Your task to perform on an android device: turn off picture-in-picture Image 0: 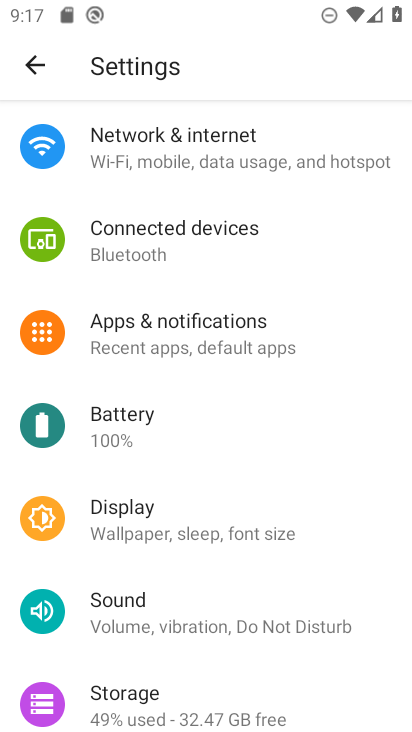
Step 0: press home button
Your task to perform on an android device: turn off picture-in-picture Image 1: 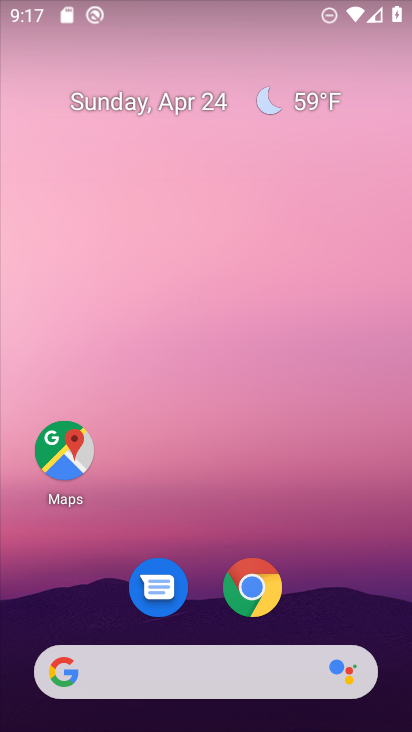
Step 1: click (255, 590)
Your task to perform on an android device: turn off picture-in-picture Image 2: 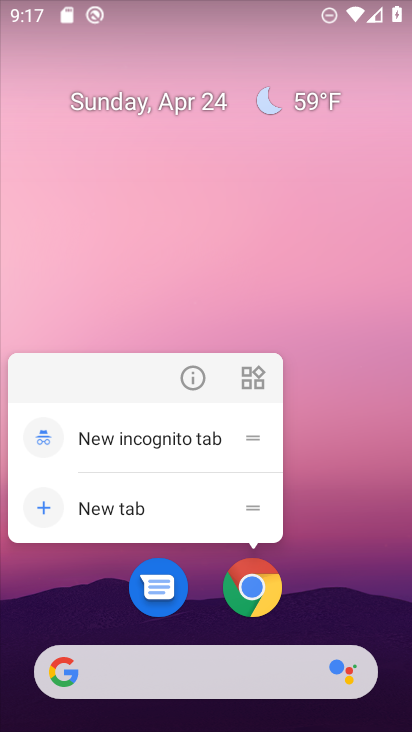
Step 2: click (193, 379)
Your task to perform on an android device: turn off picture-in-picture Image 3: 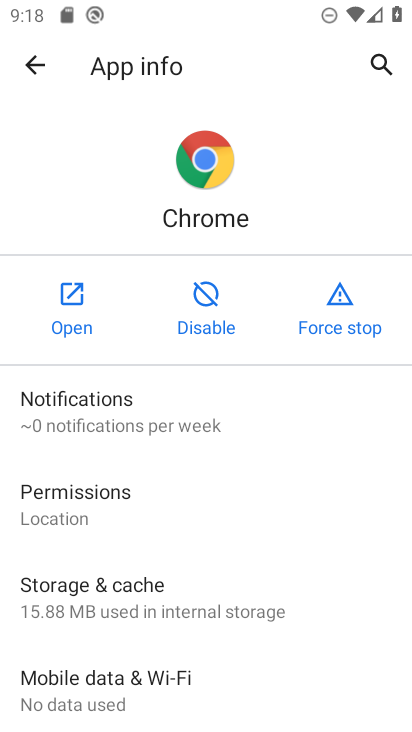
Step 3: drag from (153, 515) to (208, 379)
Your task to perform on an android device: turn off picture-in-picture Image 4: 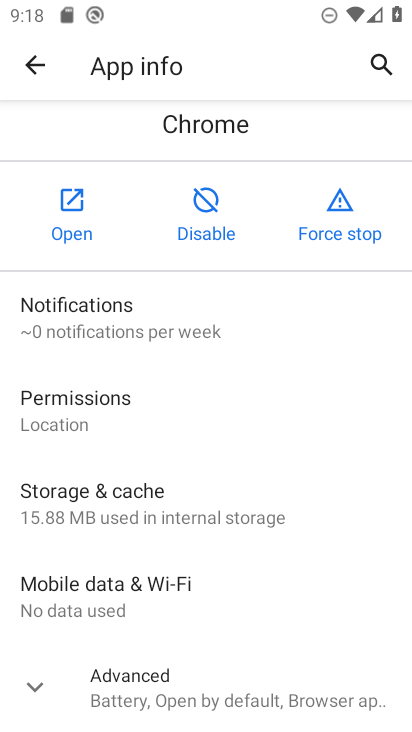
Step 4: click (121, 688)
Your task to perform on an android device: turn off picture-in-picture Image 5: 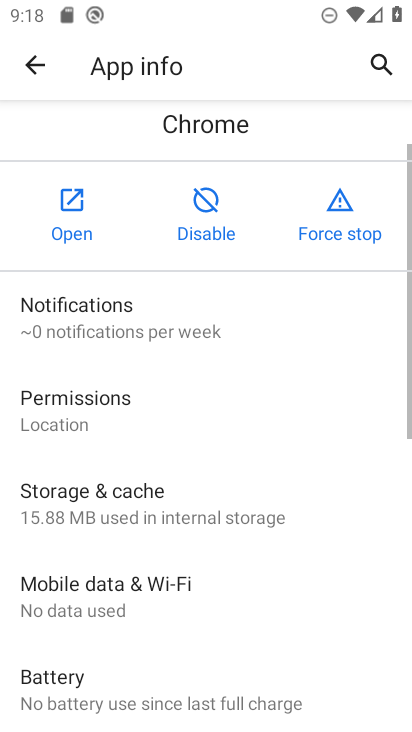
Step 5: drag from (124, 675) to (188, 530)
Your task to perform on an android device: turn off picture-in-picture Image 6: 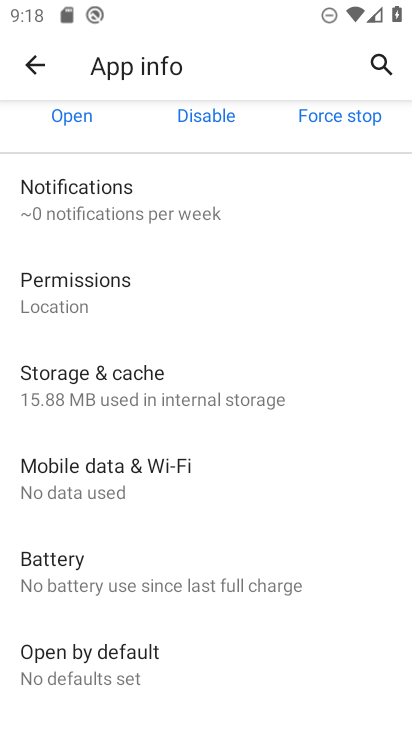
Step 6: drag from (143, 629) to (216, 518)
Your task to perform on an android device: turn off picture-in-picture Image 7: 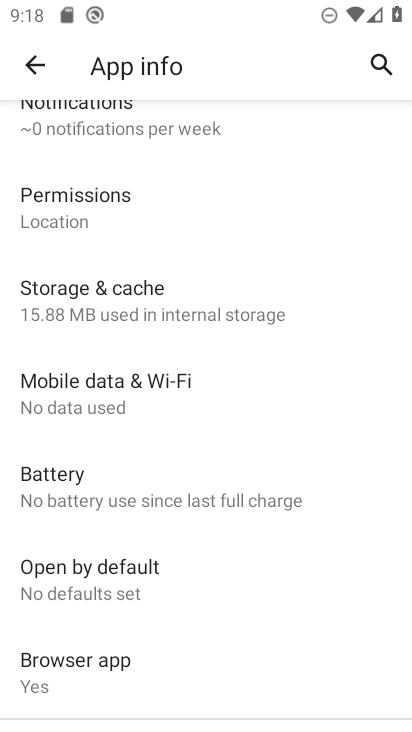
Step 7: drag from (134, 622) to (222, 497)
Your task to perform on an android device: turn off picture-in-picture Image 8: 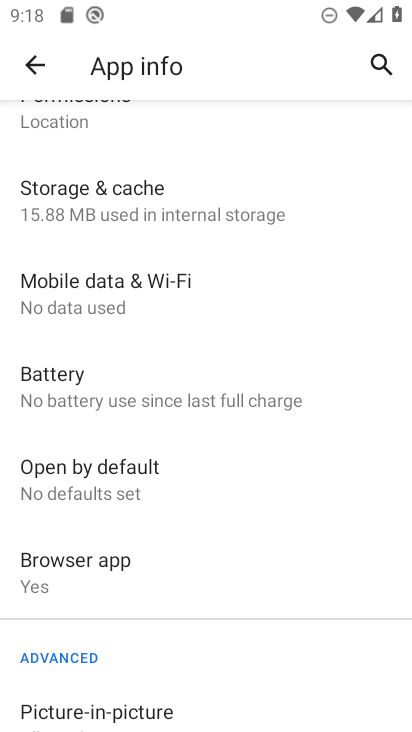
Step 8: drag from (177, 663) to (254, 520)
Your task to perform on an android device: turn off picture-in-picture Image 9: 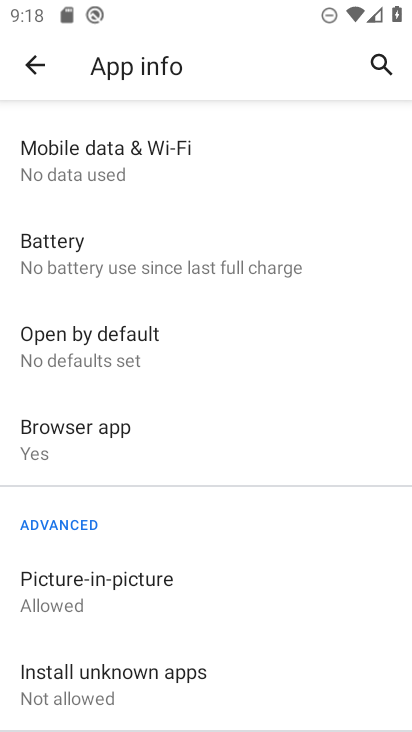
Step 9: click (161, 575)
Your task to perform on an android device: turn off picture-in-picture Image 10: 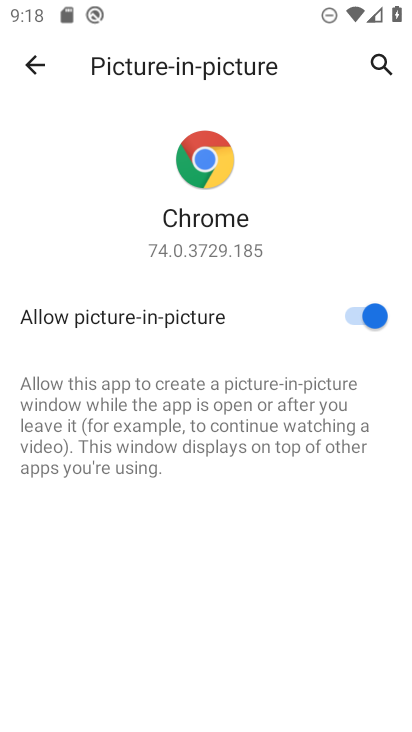
Step 10: click (372, 320)
Your task to perform on an android device: turn off picture-in-picture Image 11: 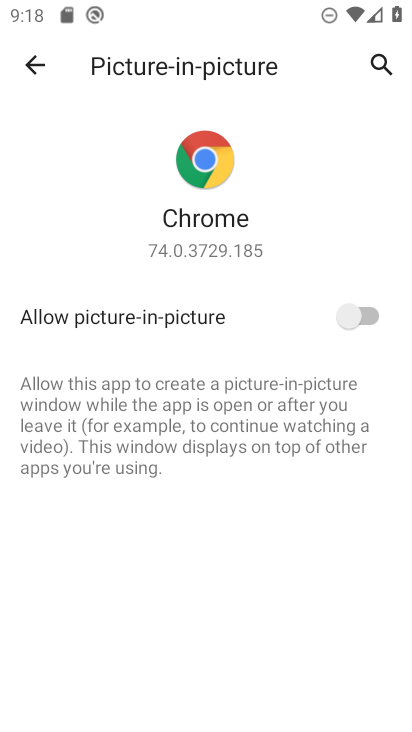
Step 11: task complete